Your task to perform on an android device: Search for pizza restaurants on Maps Image 0: 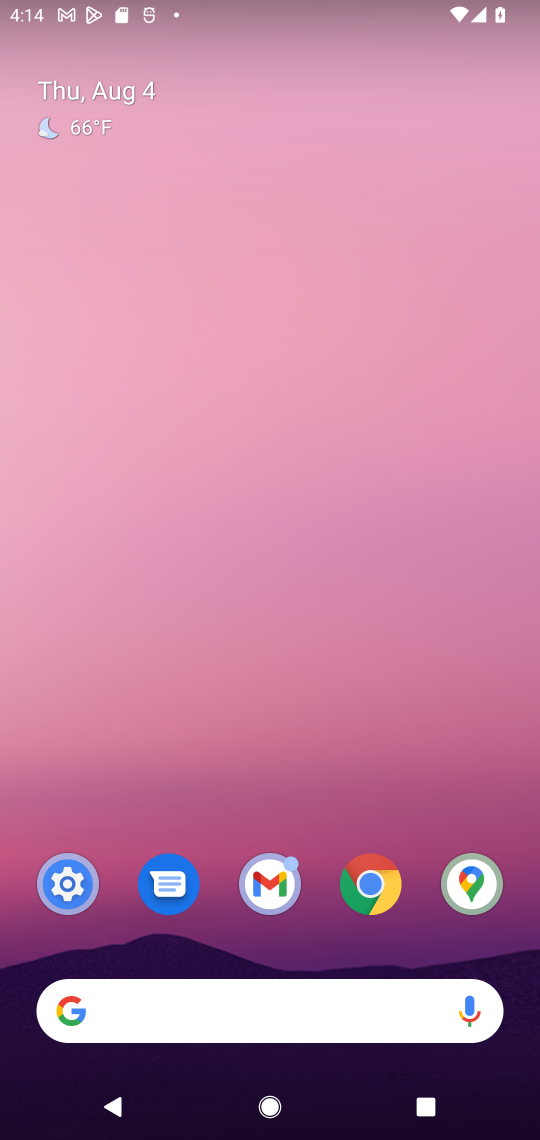
Step 0: click (472, 871)
Your task to perform on an android device: Search for pizza restaurants on Maps Image 1: 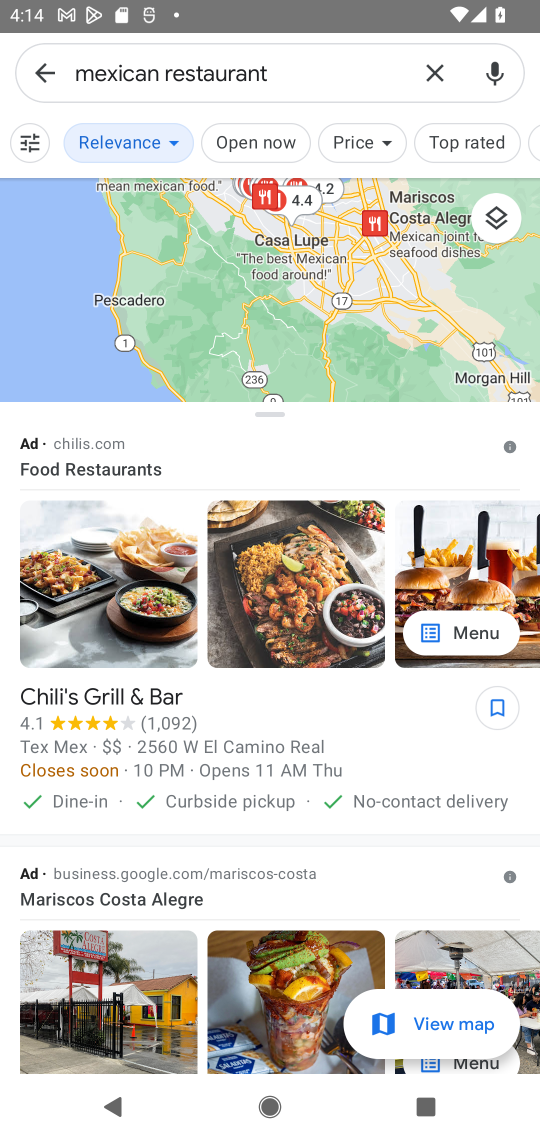
Step 1: click (418, 94)
Your task to perform on an android device: Search for pizza restaurants on Maps Image 2: 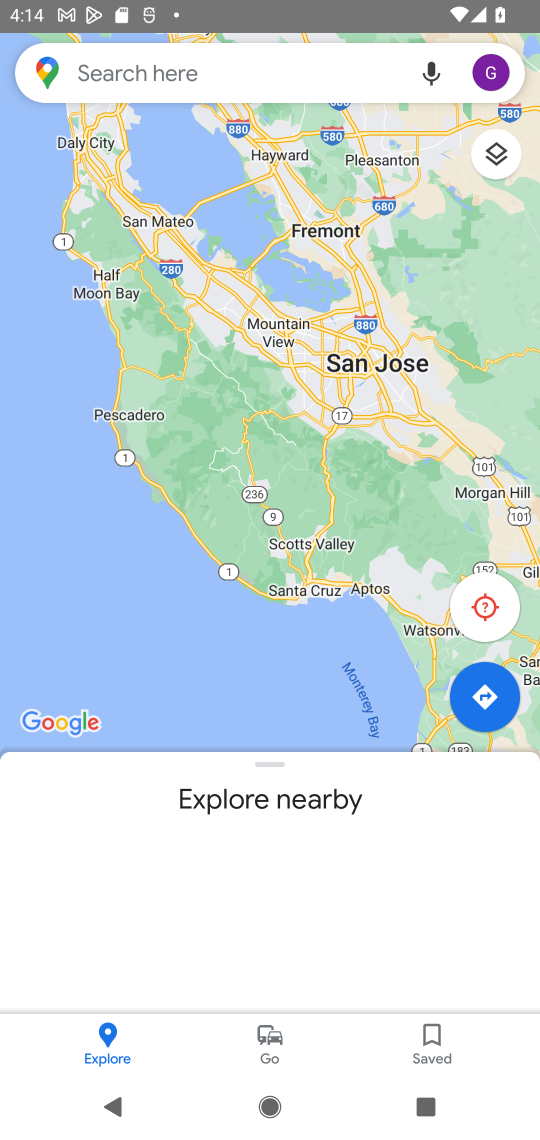
Step 2: click (326, 57)
Your task to perform on an android device: Search for pizza restaurants on Maps Image 3: 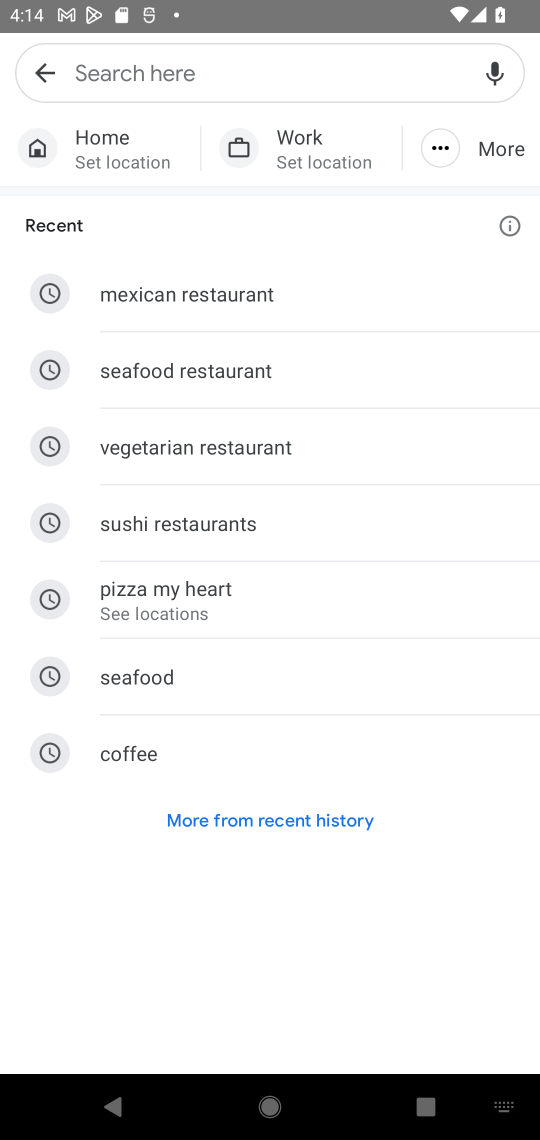
Step 3: click (251, 610)
Your task to perform on an android device: Search for pizza restaurants on Maps Image 4: 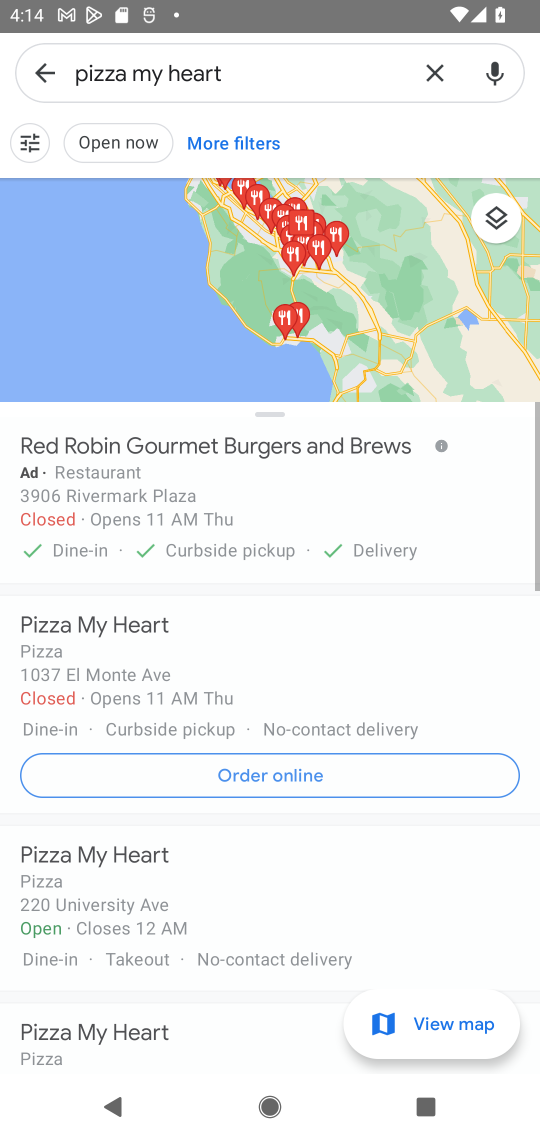
Step 4: task complete